Your task to perform on an android device: turn on showing notifications on the lock screen Image 0: 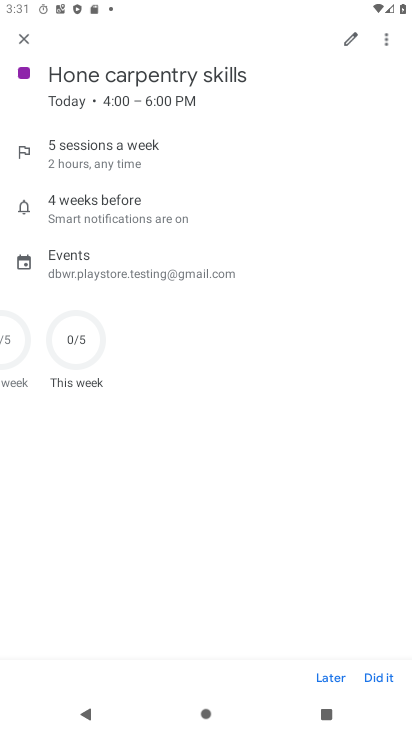
Step 0: press home button
Your task to perform on an android device: turn on showing notifications on the lock screen Image 1: 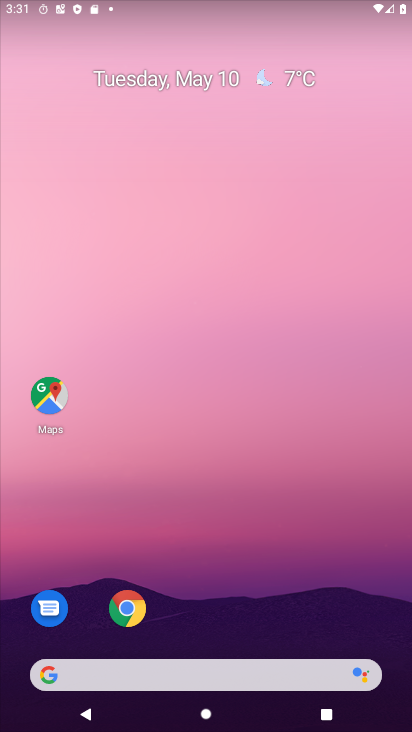
Step 1: drag from (218, 620) to (282, 24)
Your task to perform on an android device: turn on showing notifications on the lock screen Image 2: 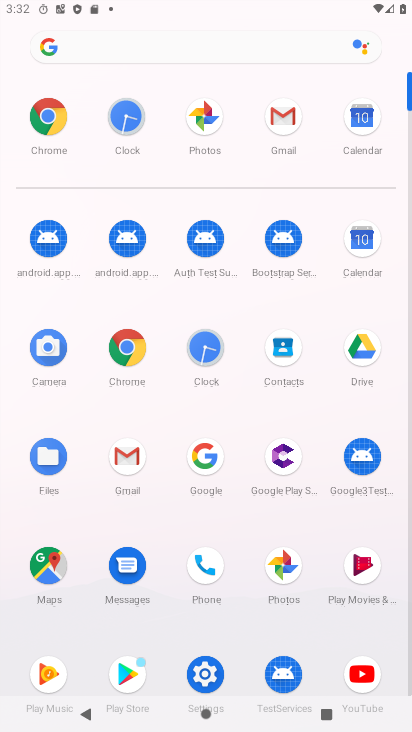
Step 2: click (202, 674)
Your task to perform on an android device: turn on showing notifications on the lock screen Image 3: 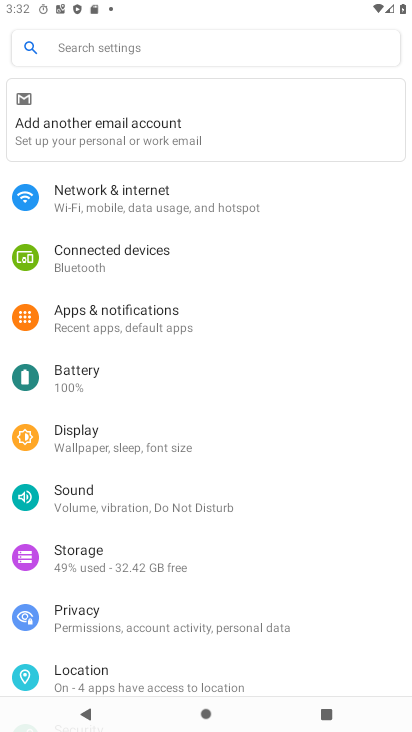
Step 3: click (90, 324)
Your task to perform on an android device: turn on showing notifications on the lock screen Image 4: 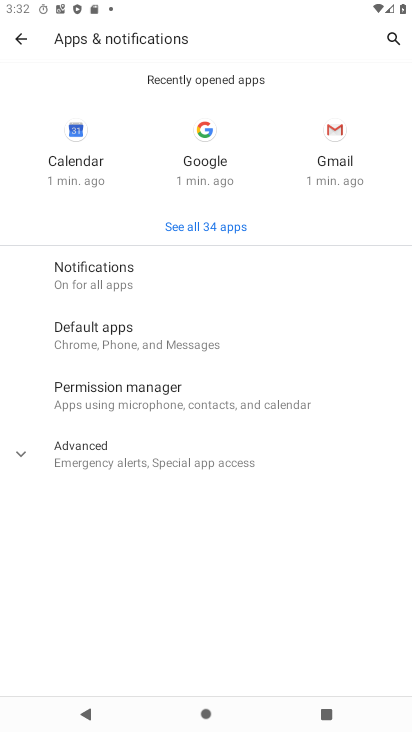
Step 4: click (83, 274)
Your task to perform on an android device: turn on showing notifications on the lock screen Image 5: 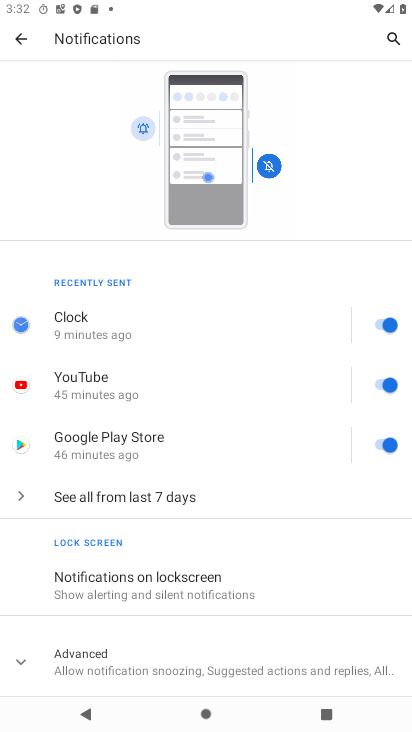
Step 5: click (109, 584)
Your task to perform on an android device: turn on showing notifications on the lock screen Image 6: 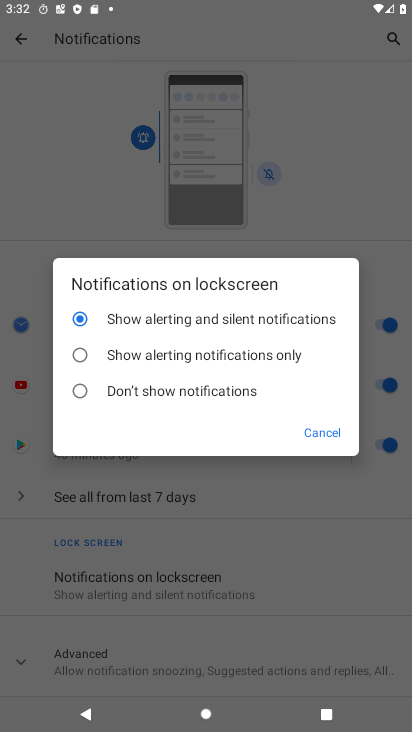
Step 6: task complete